Your task to perform on an android device: all mails in gmail Image 0: 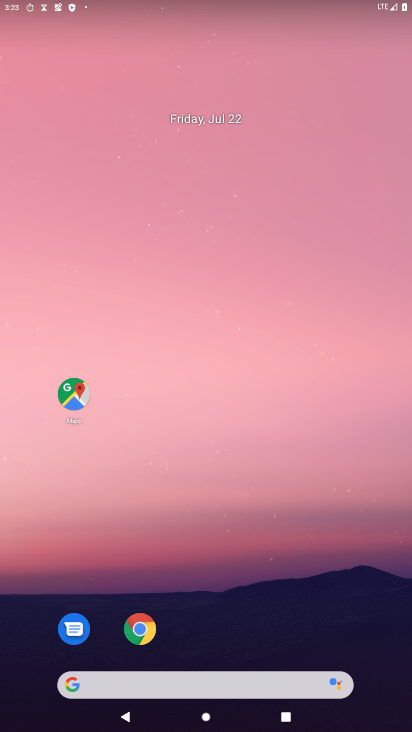
Step 0: drag from (208, 650) to (243, 77)
Your task to perform on an android device: all mails in gmail Image 1: 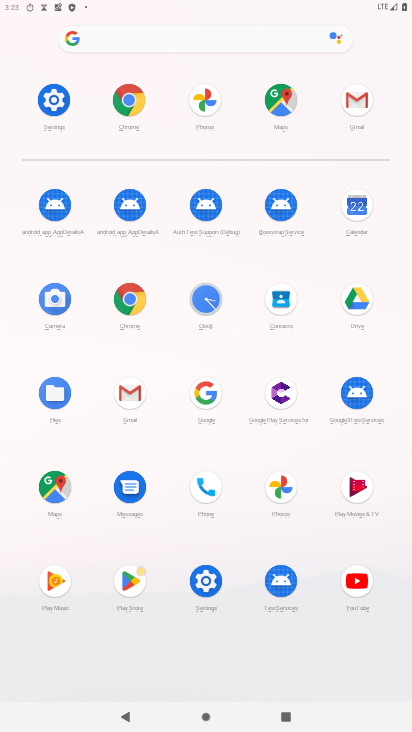
Step 1: click (127, 391)
Your task to perform on an android device: all mails in gmail Image 2: 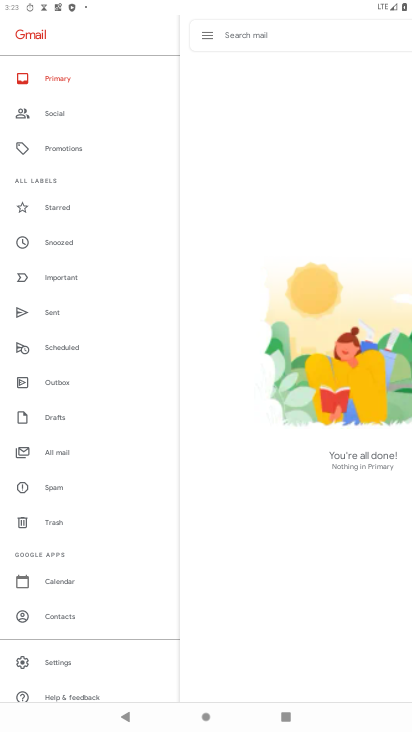
Step 2: click (74, 446)
Your task to perform on an android device: all mails in gmail Image 3: 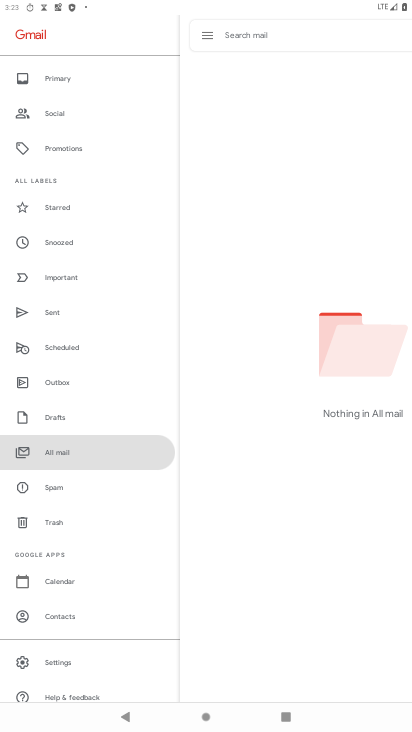
Step 3: task complete